Your task to perform on an android device: check storage Image 0: 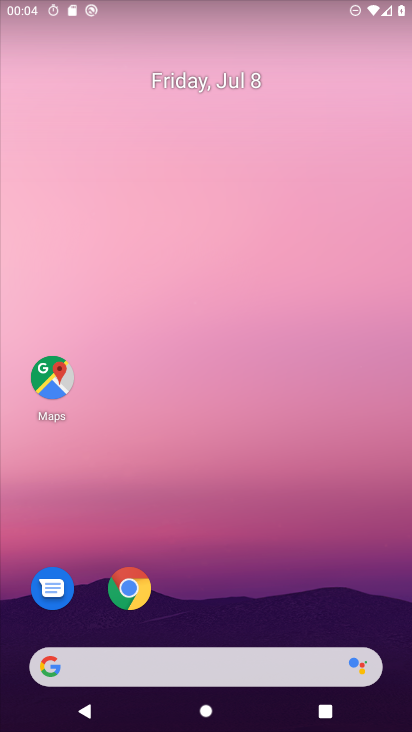
Step 0: drag from (270, 611) to (240, 47)
Your task to perform on an android device: check storage Image 1: 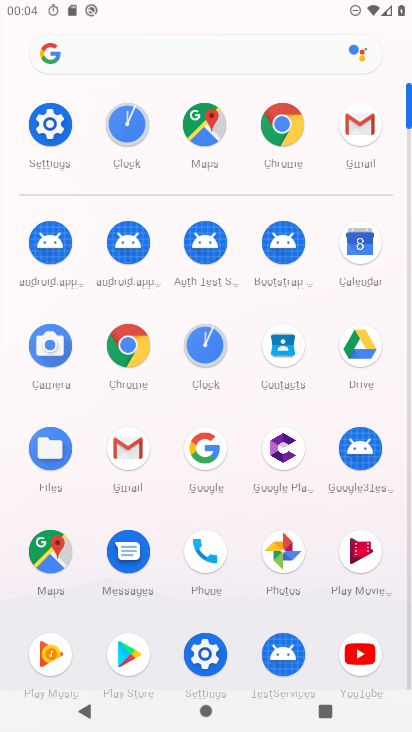
Step 1: click (49, 116)
Your task to perform on an android device: check storage Image 2: 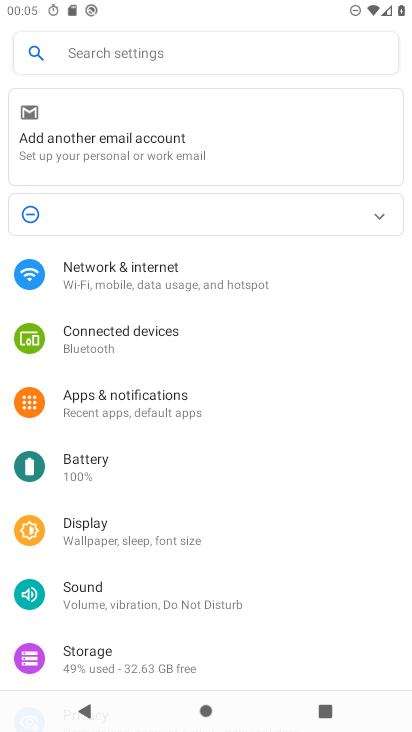
Step 2: click (94, 658)
Your task to perform on an android device: check storage Image 3: 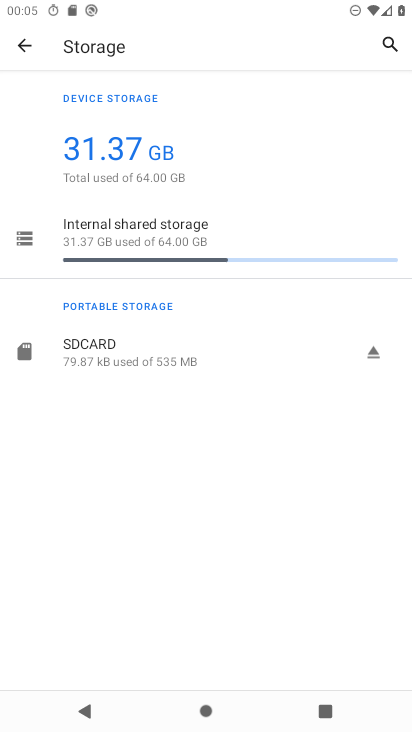
Step 3: task complete